Your task to perform on an android device: change your default location settings in chrome Image 0: 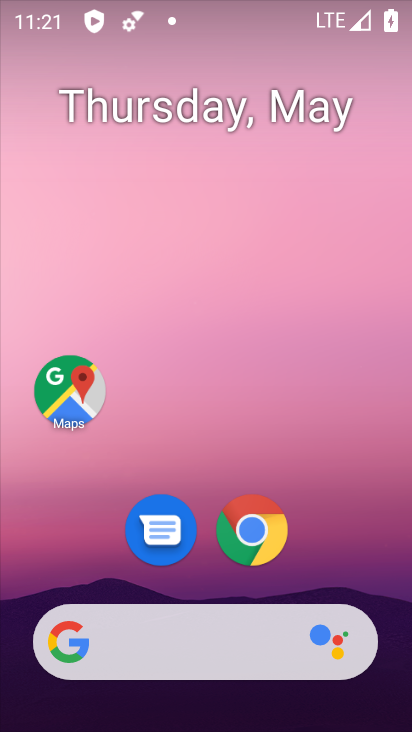
Step 0: click (269, 514)
Your task to perform on an android device: change your default location settings in chrome Image 1: 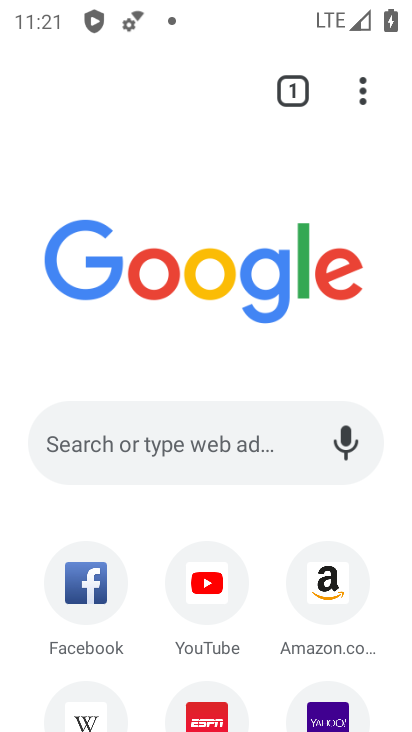
Step 1: click (358, 81)
Your task to perform on an android device: change your default location settings in chrome Image 2: 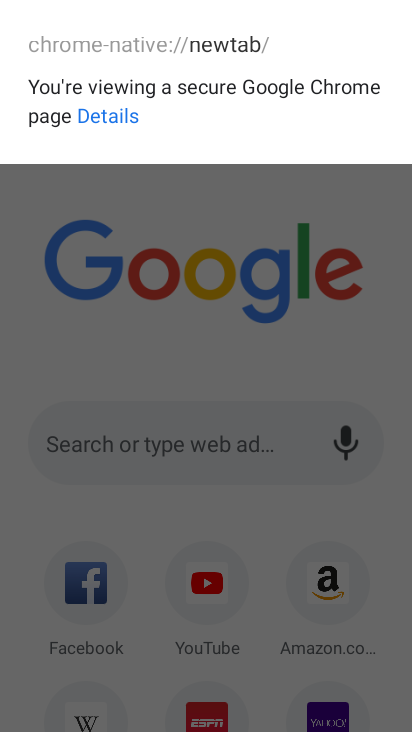
Step 2: click (332, 325)
Your task to perform on an android device: change your default location settings in chrome Image 3: 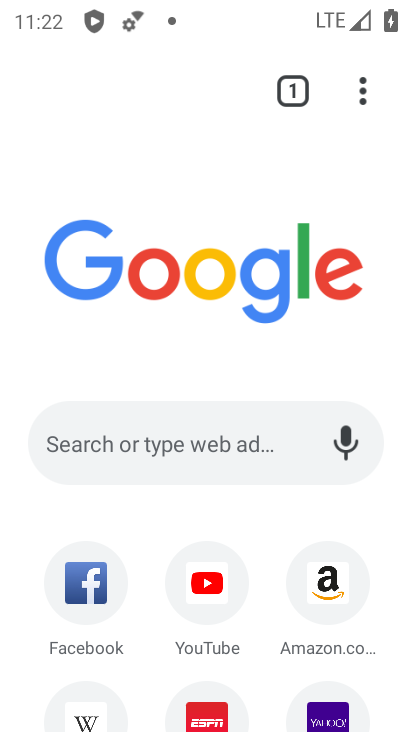
Step 3: click (360, 90)
Your task to perform on an android device: change your default location settings in chrome Image 4: 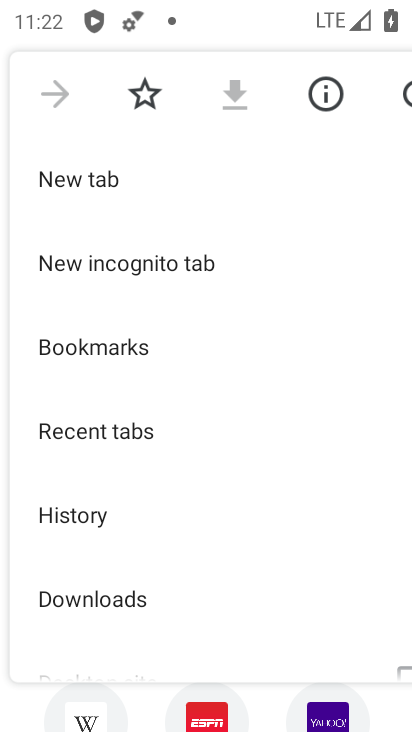
Step 4: drag from (216, 664) to (212, 70)
Your task to perform on an android device: change your default location settings in chrome Image 5: 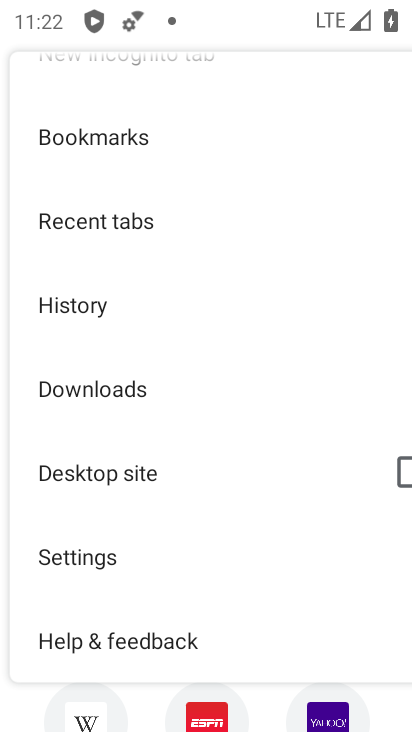
Step 5: click (128, 554)
Your task to perform on an android device: change your default location settings in chrome Image 6: 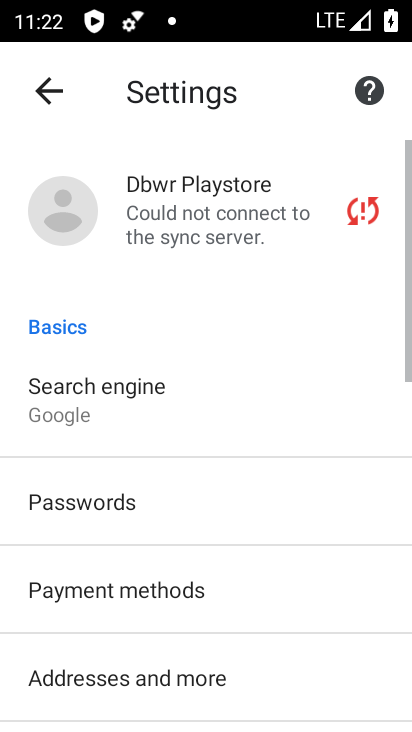
Step 6: drag from (260, 648) to (324, 29)
Your task to perform on an android device: change your default location settings in chrome Image 7: 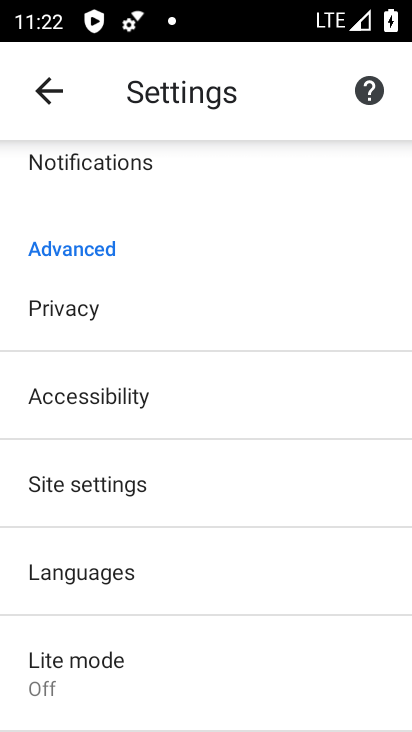
Step 7: click (87, 481)
Your task to perform on an android device: change your default location settings in chrome Image 8: 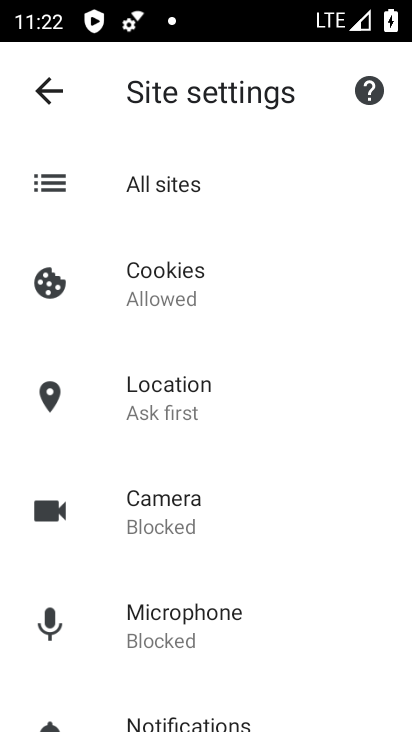
Step 8: click (196, 404)
Your task to perform on an android device: change your default location settings in chrome Image 9: 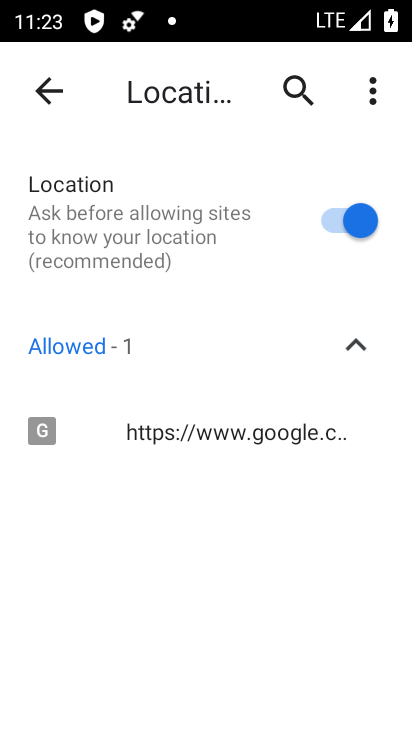
Step 9: click (365, 231)
Your task to perform on an android device: change your default location settings in chrome Image 10: 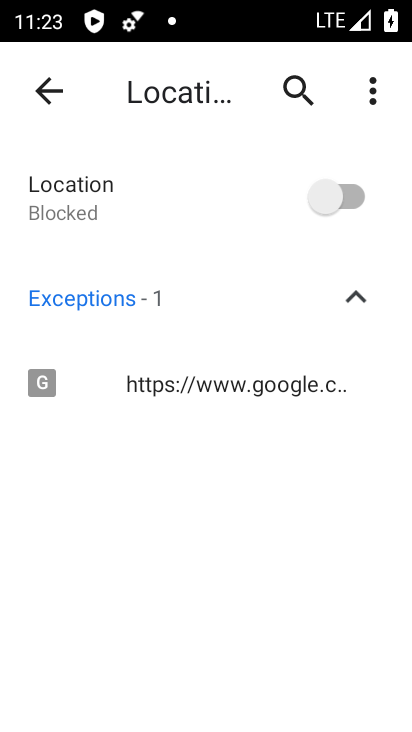
Step 10: task complete